Your task to perform on an android device: turn off location Image 0: 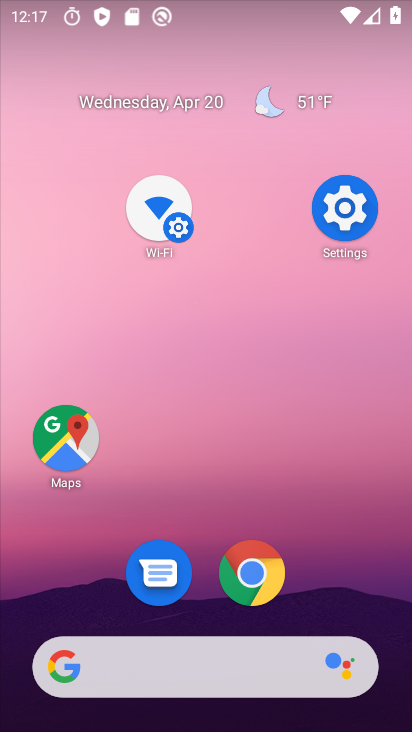
Step 0: click (317, 220)
Your task to perform on an android device: turn off location Image 1: 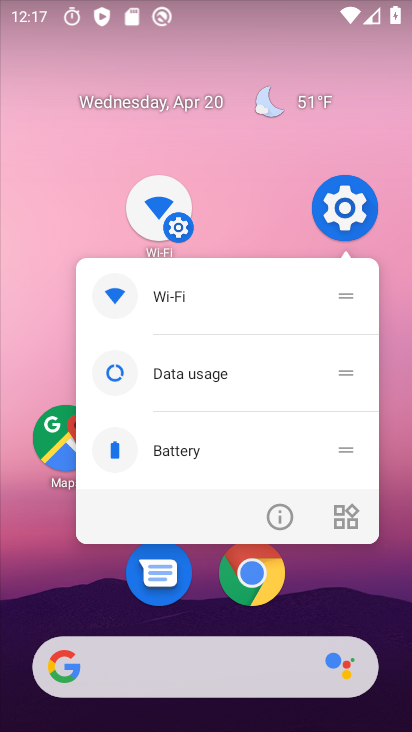
Step 1: click (348, 212)
Your task to perform on an android device: turn off location Image 2: 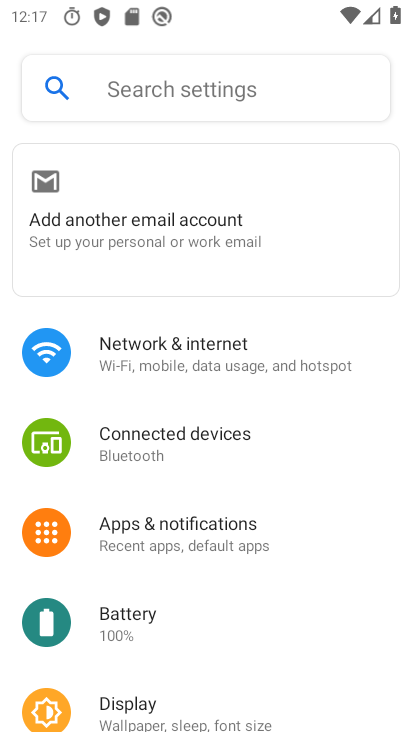
Step 2: drag from (262, 667) to (282, 359)
Your task to perform on an android device: turn off location Image 3: 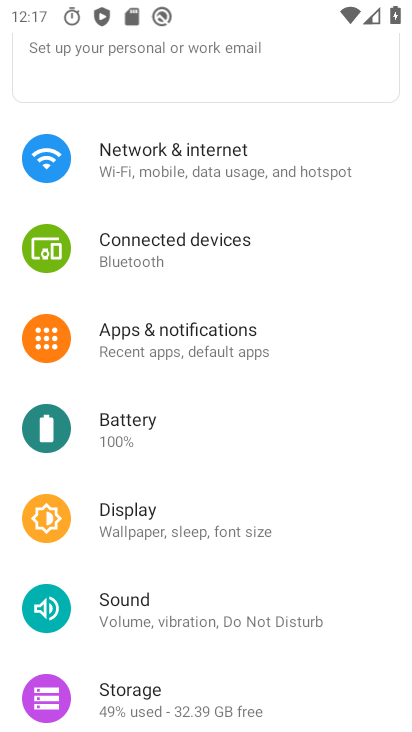
Step 3: drag from (251, 676) to (245, 338)
Your task to perform on an android device: turn off location Image 4: 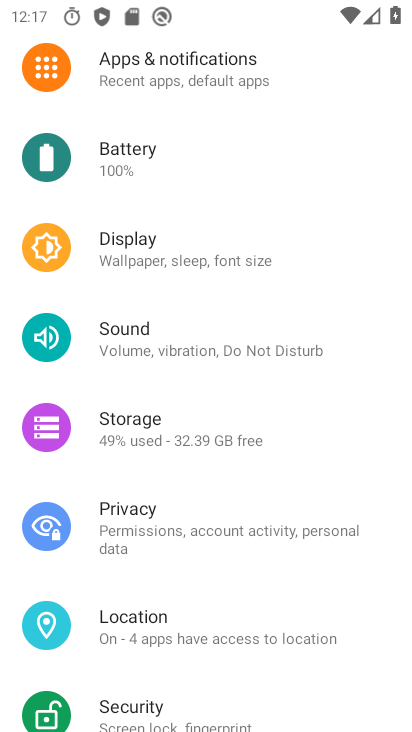
Step 4: click (191, 643)
Your task to perform on an android device: turn off location Image 5: 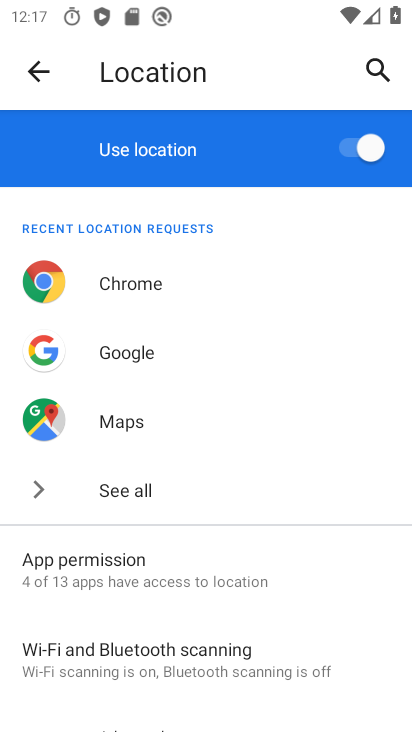
Step 5: click (348, 159)
Your task to perform on an android device: turn off location Image 6: 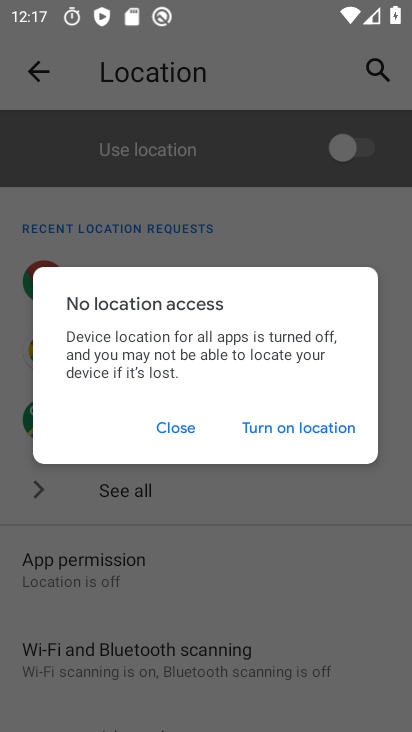
Step 6: task complete